Your task to perform on an android device: toggle notification dots Image 0: 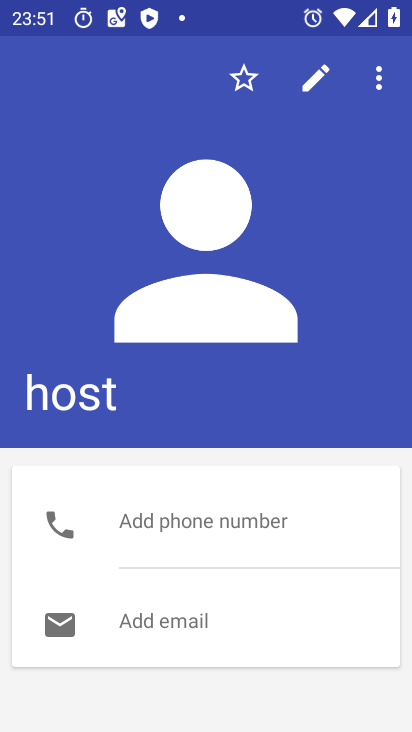
Step 0: press home button
Your task to perform on an android device: toggle notification dots Image 1: 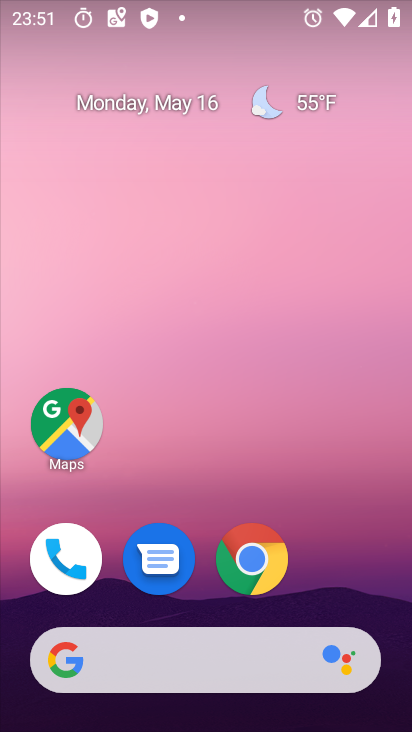
Step 1: drag from (375, 610) to (335, 156)
Your task to perform on an android device: toggle notification dots Image 2: 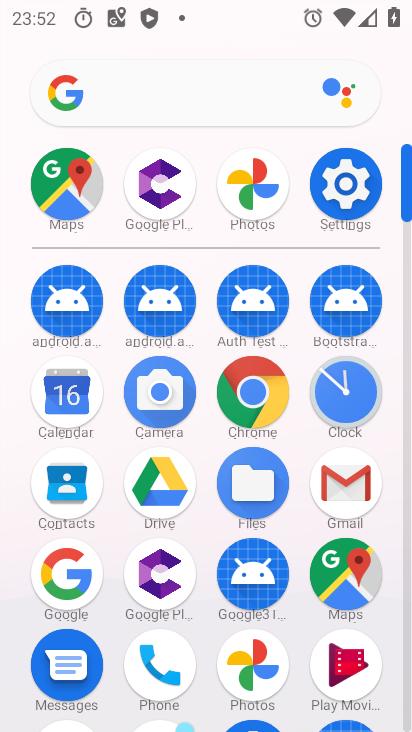
Step 2: click (346, 187)
Your task to perform on an android device: toggle notification dots Image 3: 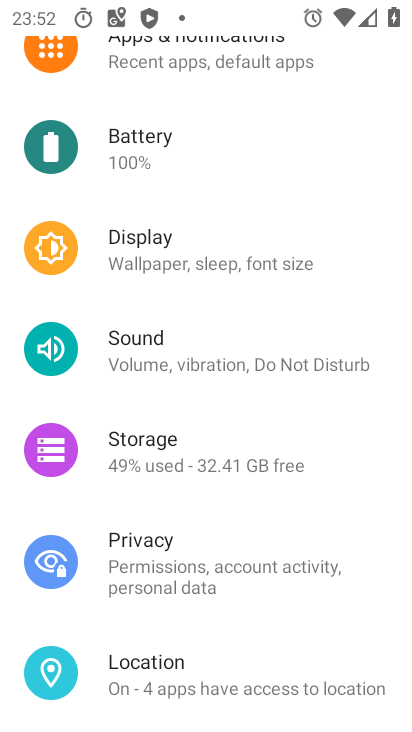
Step 3: click (227, 70)
Your task to perform on an android device: toggle notification dots Image 4: 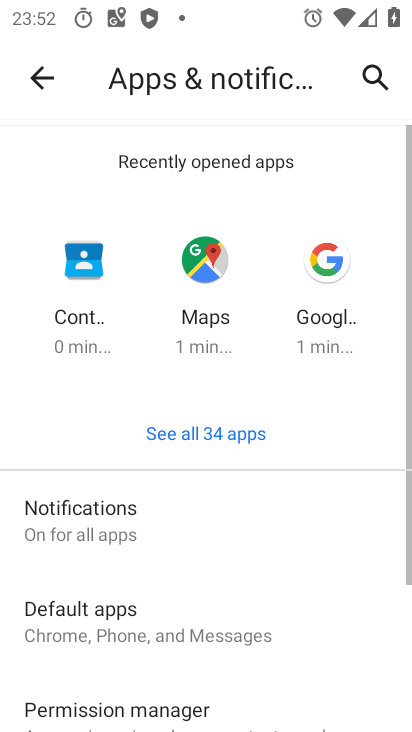
Step 4: click (168, 516)
Your task to perform on an android device: toggle notification dots Image 5: 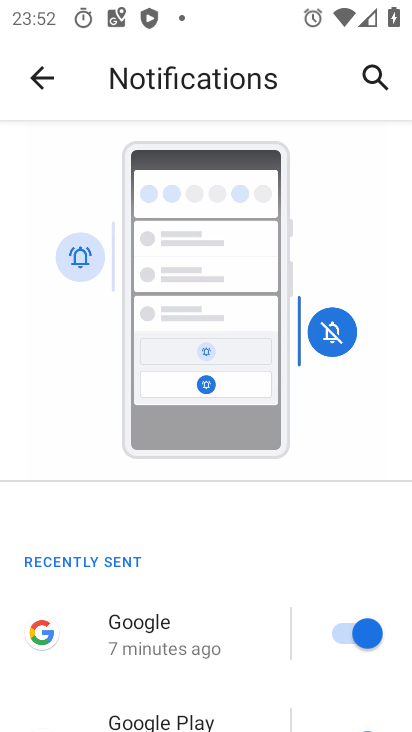
Step 5: drag from (223, 625) to (279, 87)
Your task to perform on an android device: toggle notification dots Image 6: 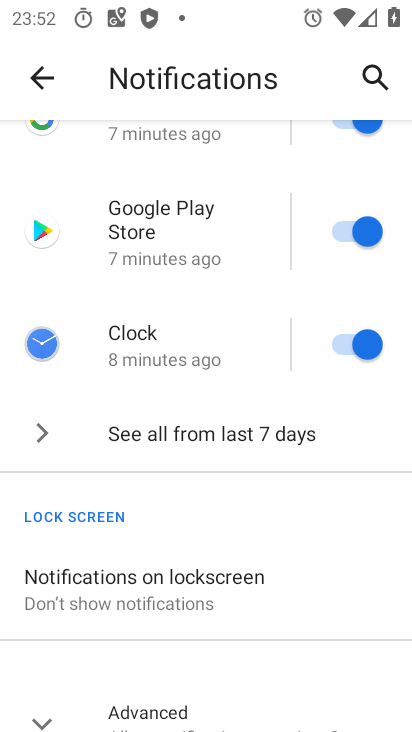
Step 6: drag from (214, 608) to (288, 190)
Your task to perform on an android device: toggle notification dots Image 7: 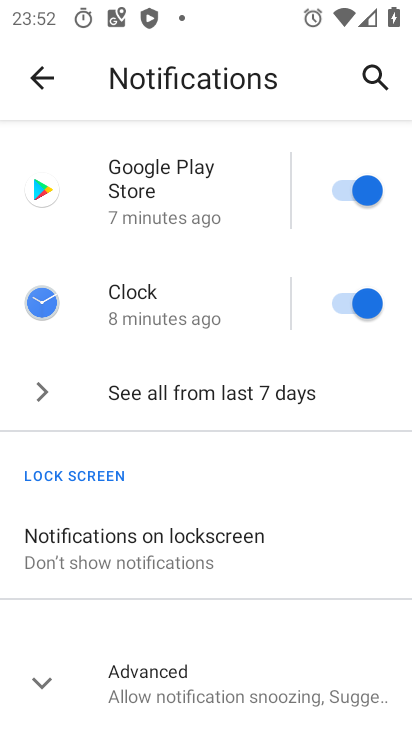
Step 7: click (187, 660)
Your task to perform on an android device: toggle notification dots Image 8: 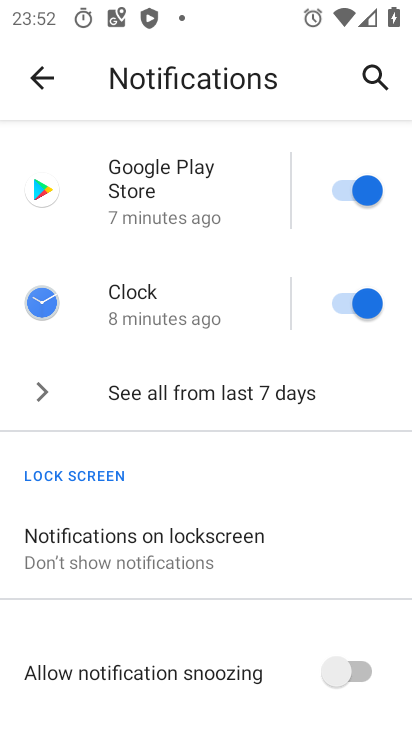
Step 8: drag from (203, 673) to (235, 219)
Your task to perform on an android device: toggle notification dots Image 9: 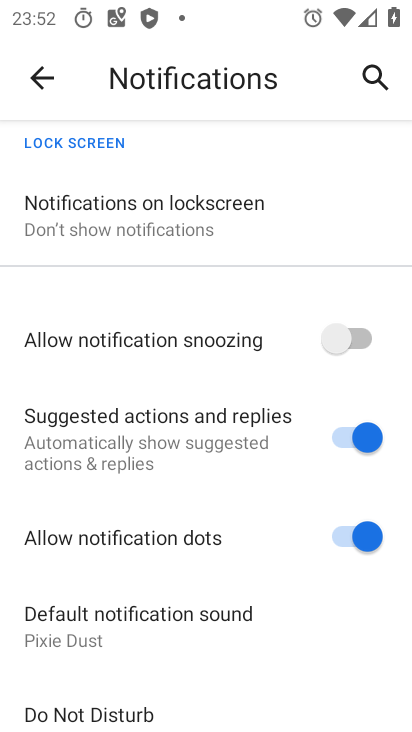
Step 9: click (342, 540)
Your task to perform on an android device: toggle notification dots Image 10: 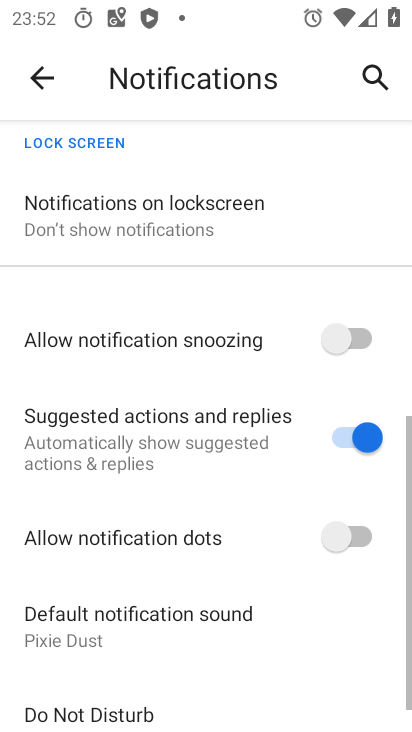
Step 10: task complete